Your task to perform on an android device: turn off priority inbox in the gmail app Image 0: 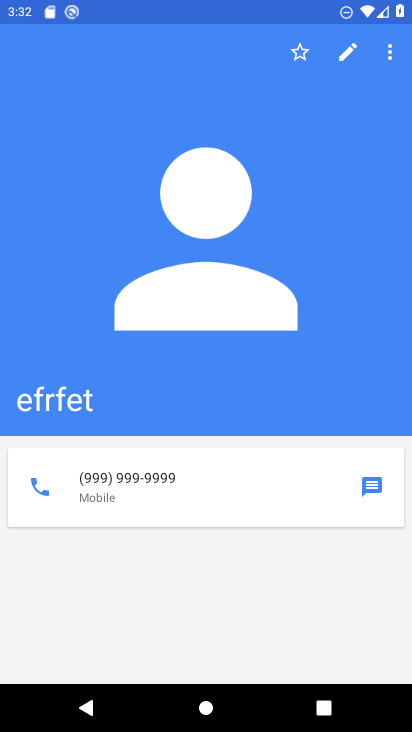
Step 0: press home button
Your task to perform on an android device: turn off priority inbox in the gmail app Image 1: 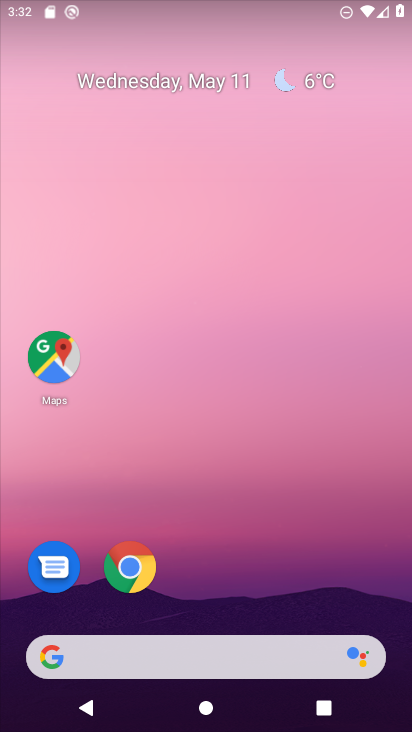
Step 1: drag from (364, 538) to (283, 296)
Your task to perform on an android device: turn off priority inbox in the gmail app Image 2: 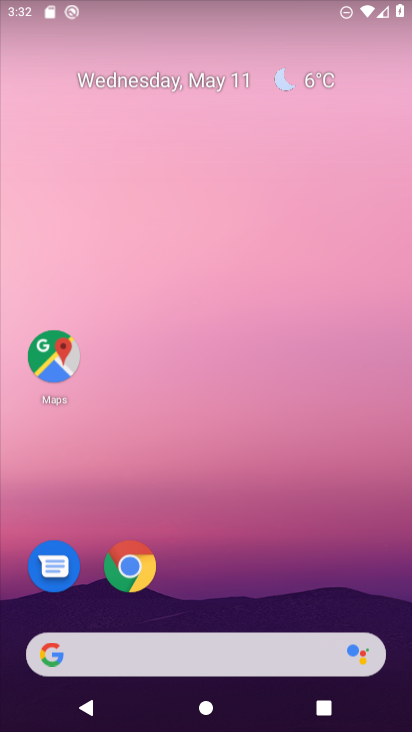
Step 2: click (283, 296)
Your task to perform on an android device: turn off priority inbox in the gmail app Image 3: 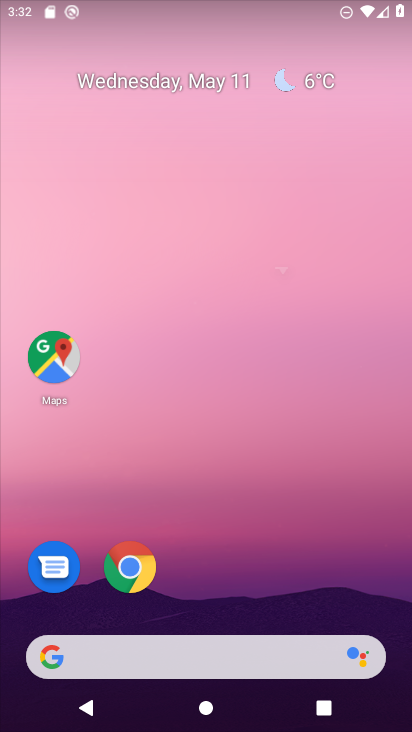
Step 3: click (283, 296)
Your task to perform on an android device: turn off priority inbox in the gmail app Image 4: 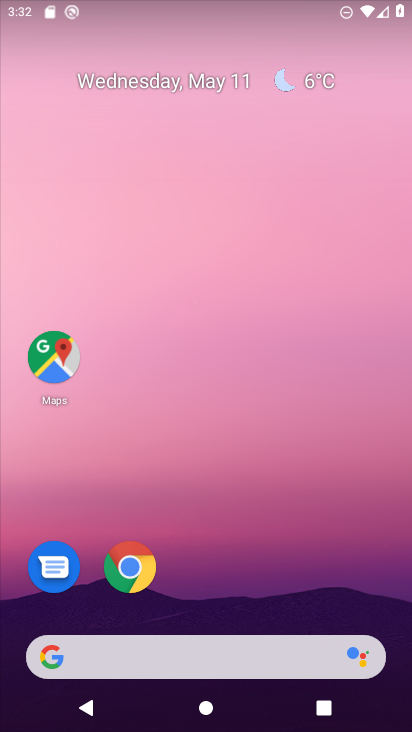
Step 4: drag from (318, 573) to (236, 247)
Your task to perform on an android device: turn off priority inbox in the gmail app Image 5: 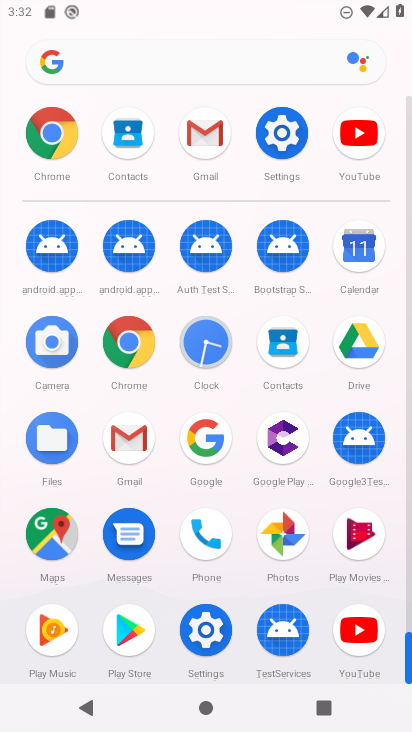
Step 5: click (140, 439)
Your task to perform on an android device: turn off priority inbox in the gmail app Image 6: 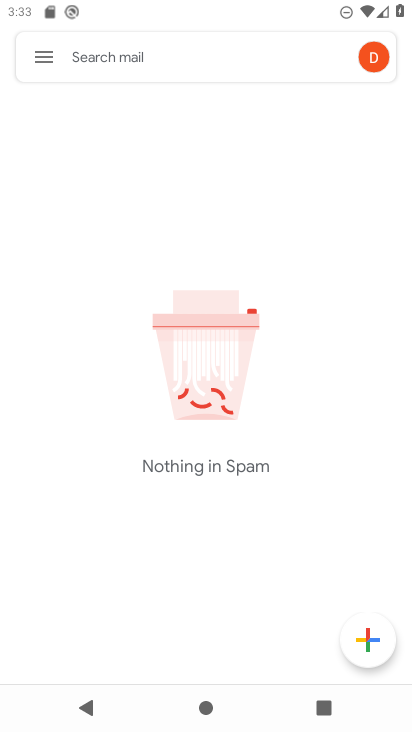
Step 6: click (41, 49)
Your task to perform on an android device: turn off priority inbox in the gmail app Image 7: 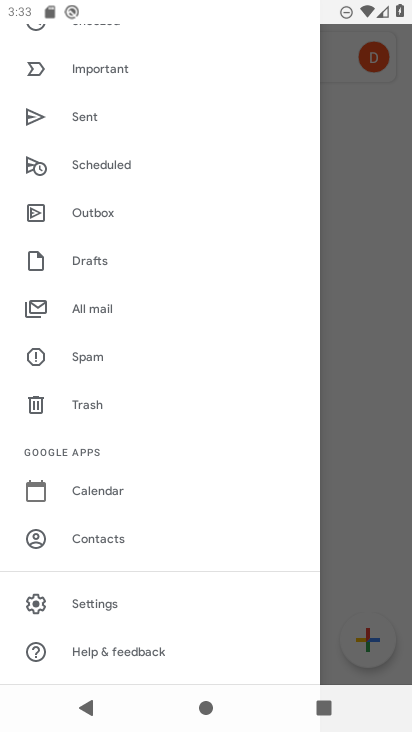
Step 7: click (127, 597)
Your task to perform on an android device: turn off priority inbox in the gmail app Image 8: 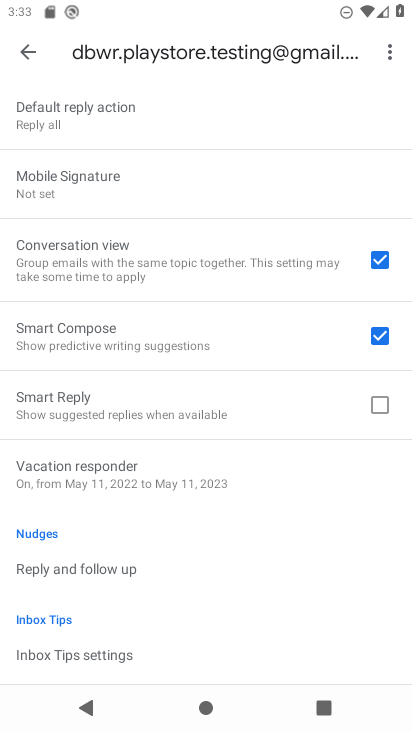
Step 8: drag from (158, 214) to (221, 687)
Your task to perform on an android device: turn off priority inbox in the gmail app Image 9: 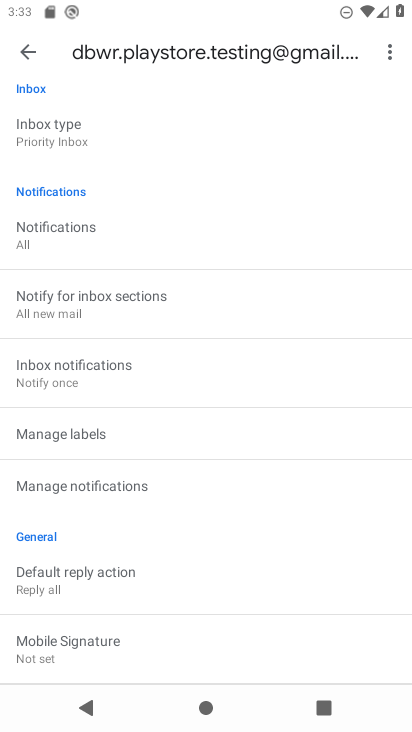
Step 9: click (87, 139)
Your task to perform on an android device: turn off priority inbox in the gmail app Image 10: 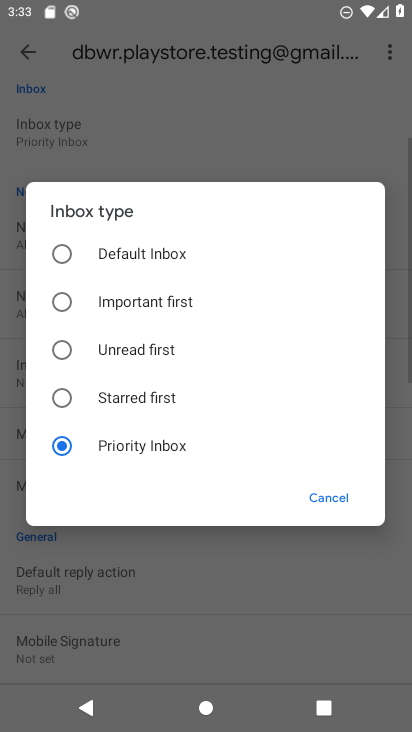
Step 10: click (82, 253)
Your task to perform on an android device: turn off priority inbox in the gmail app Image 11: 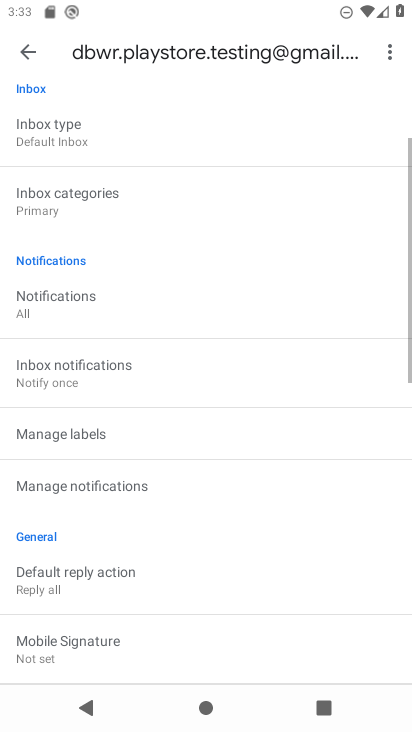
Step 11: task complete